Your task to perform on an android device: Search for seafood restaurants on Google Maps Image 0: 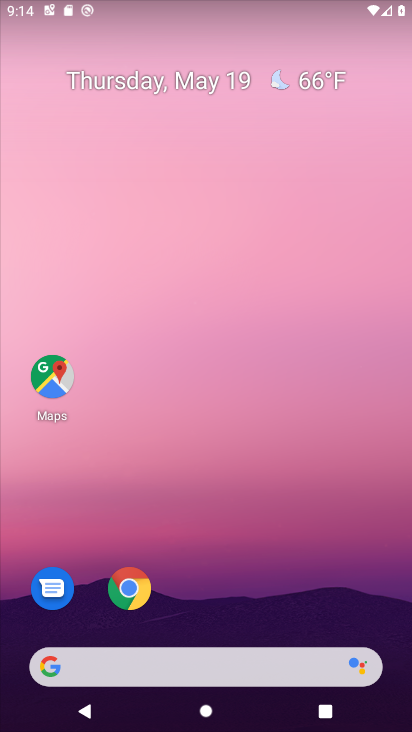
Step 0: drag from (380, 615) to (386, 233)
Your task to perform on an android device: Search for seafood restaurants on Google Maps Image 1: 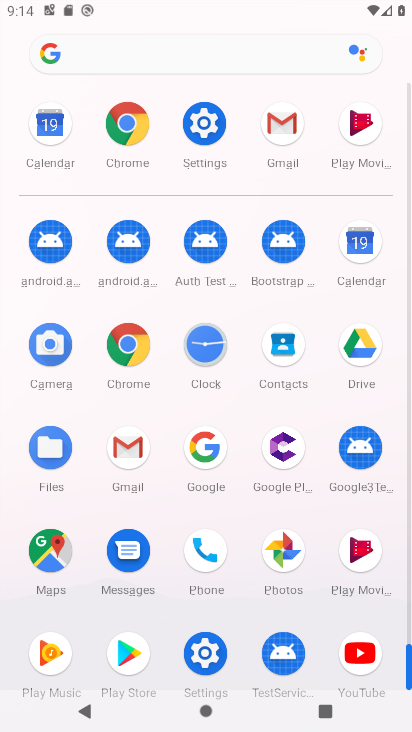
Step 1: click (49, 568)
Your task to perform on an android device: Search for seafood restaurants on Google Maps Image 2: 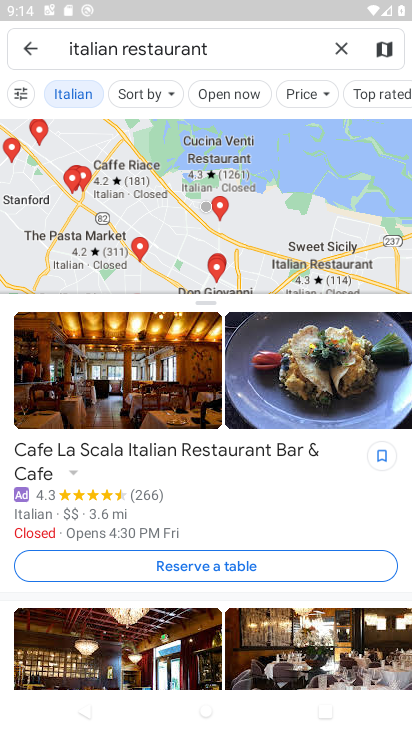
Step 2: click (340, 54)
Your task to perform on an android device: Search for seafood restaurants on Google Maps Image 3: 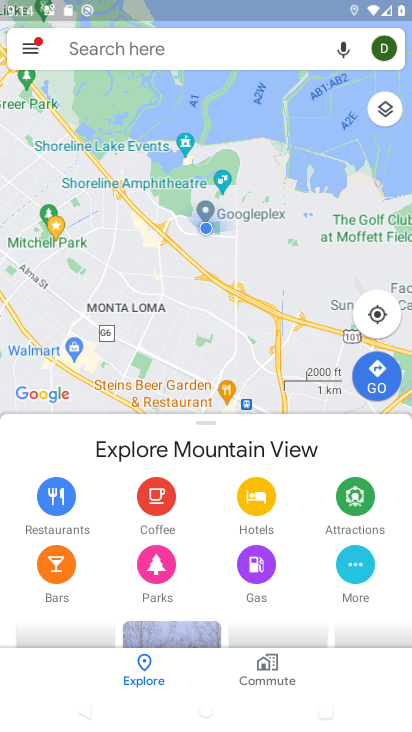
Step 3: click (151, 60)
Your task to perform on an android device: Search for seafood restaurants on Google Maps Image 4: 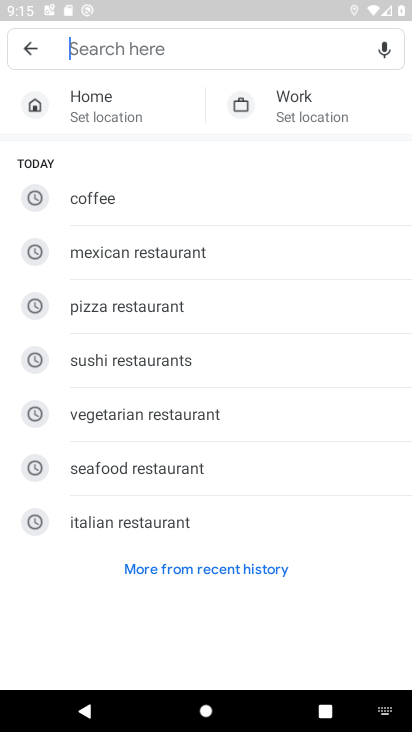
Step 4: type "seafood restaurants"
Your task to perform on an android device: Search for seafood restaurants on Google Maps Image 5: 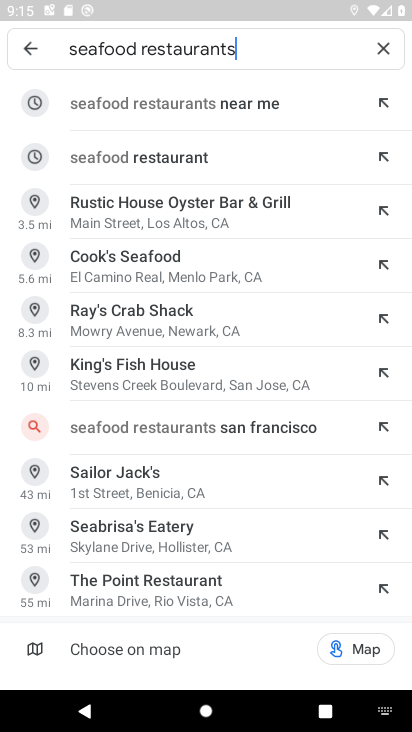
Step 5: click (229, 157)
Your task to perform on an android device: Search for seafood restaurants on Google Maps Image 6: 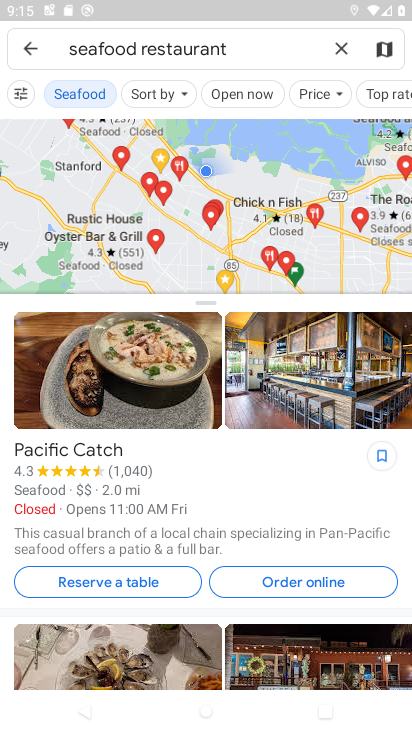
Step 6: task complete